Your task to perform on an android device: Do I have any events tomorrow? Image 0: 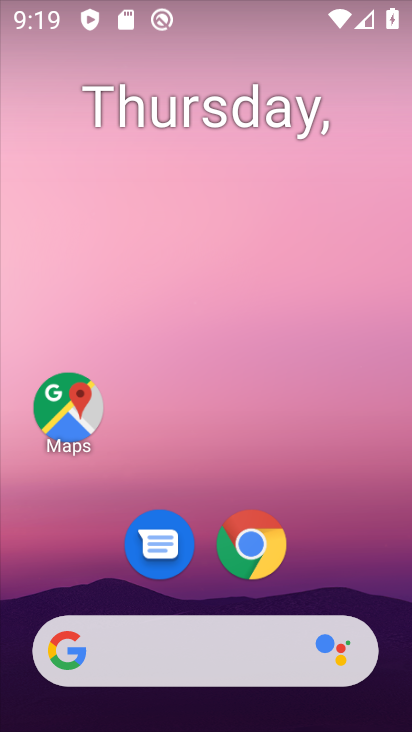
Step 0: drag from (330, 565) to (251, 10)
Your task to perform on an android device: Do I have any events tomorrow? Image 1: 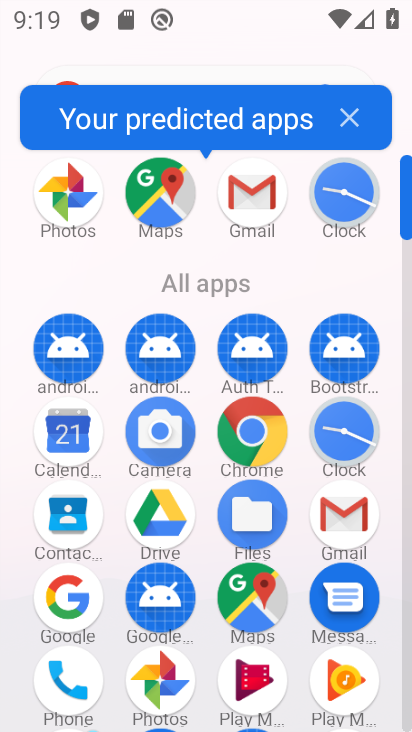
Step 1: click (59, 437)
Your task to perform on an android device: Do I have any events tomorrow? Image 2: 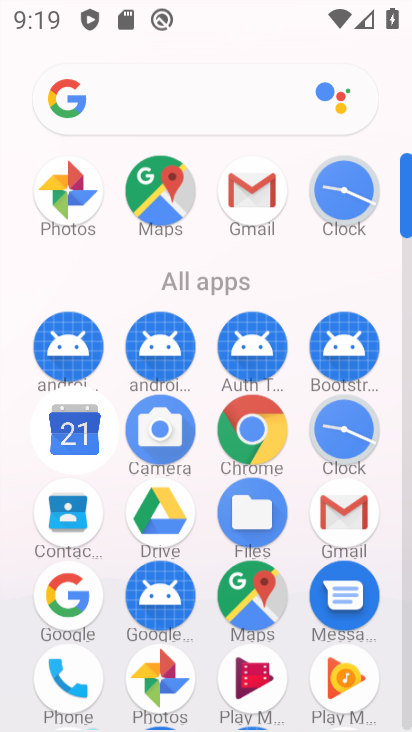
Step 2: click (59, 437)
Your task to perform on an android device: Do I have any events tomorrow? Image 3: 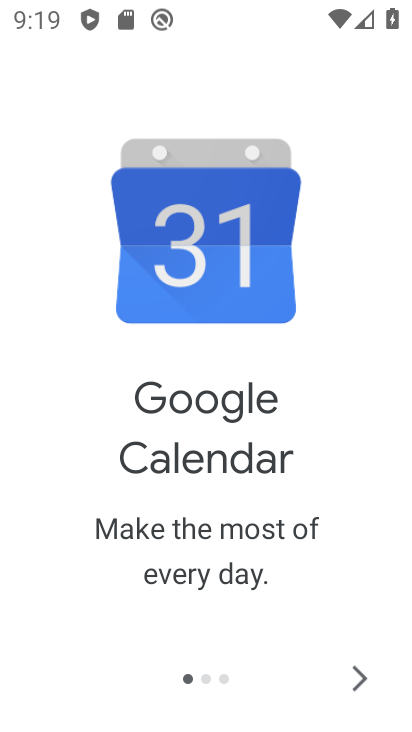
Step 3: click (359, 673)
Your task to perform on an android device: Do I have any events tomorrow? Image 4: 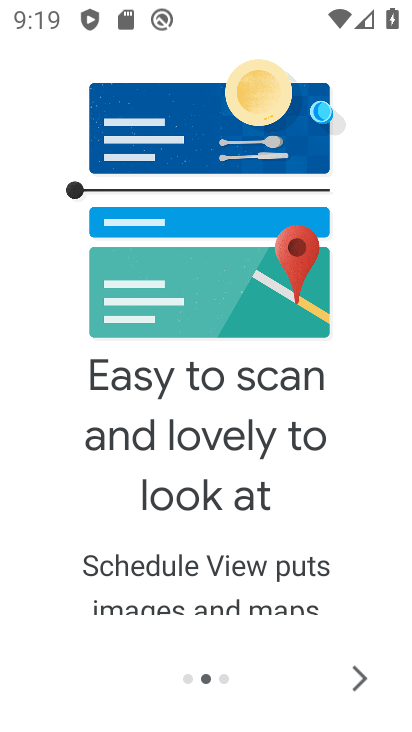
Step 4: click (359, 673)
Your task to perform on an android device: Do I have any events tomorrow? Image 5: 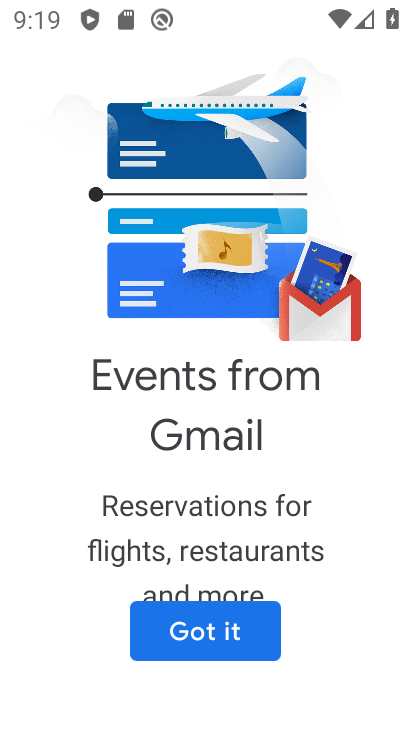
Step 5: click (224, 636)
Your task to perform on an android device: Do I have any events tomorrow? Image 6: 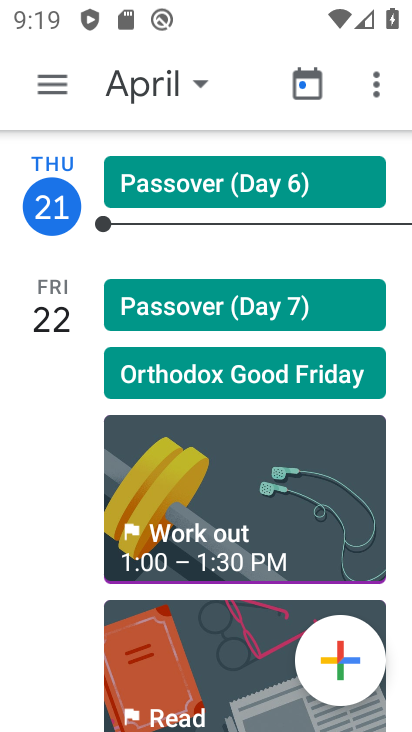
Step 6: click (188, 79)
Your task to perform on an android device: Do I have any events tomorrow? Image 7: 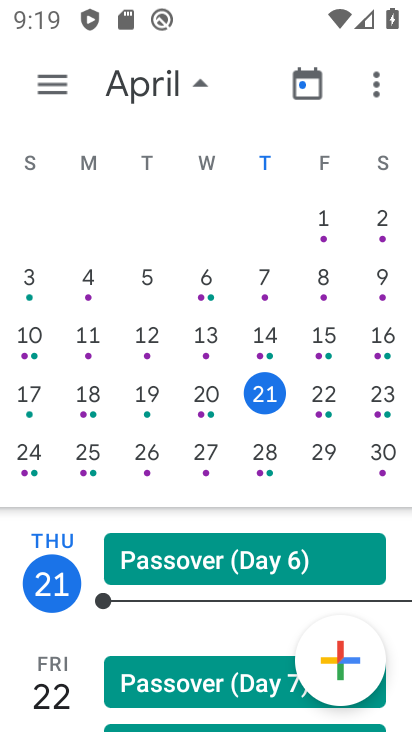
Step 7: click (321, 389)
Your task to perform on an android device: Do I have any events tomorrow? Image 8: 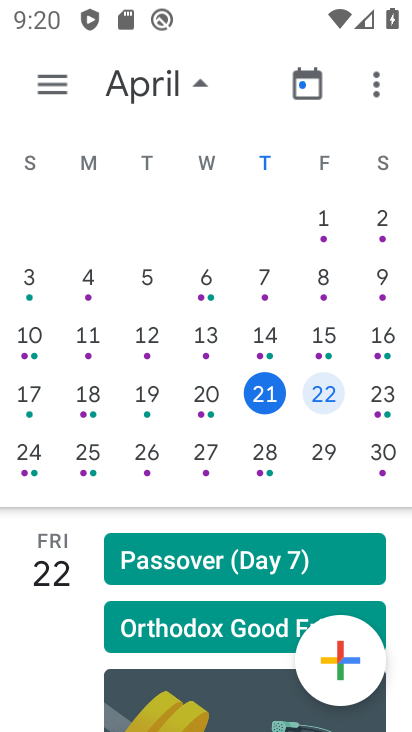
Step 8: task complete